Your task to perform on an android device: What's the weather going to be tomorrow? Image 0: 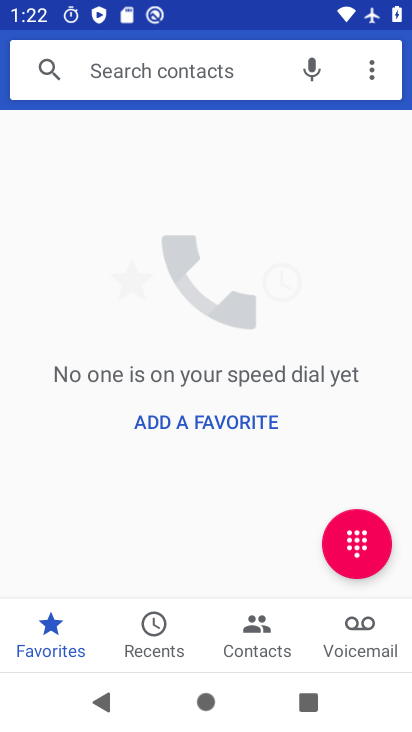
Step 0: press home button
Your task to perform on an android device: What's the weather going to be tomorrow? Image 1: 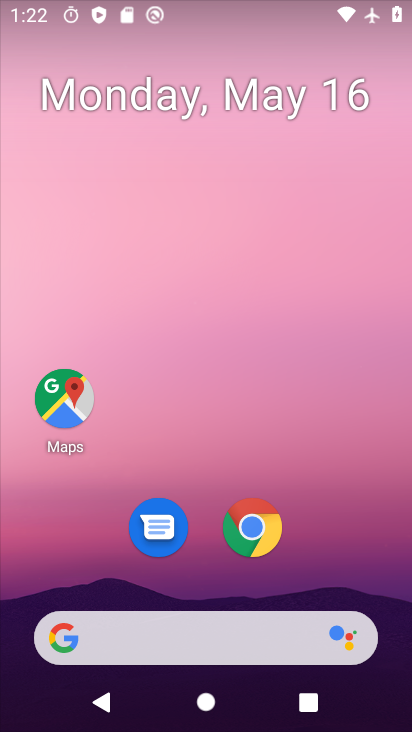
Step 1: click (68, 634)
Your task to perform on an android device: What's the weather going to be tomorrow? Image 2: 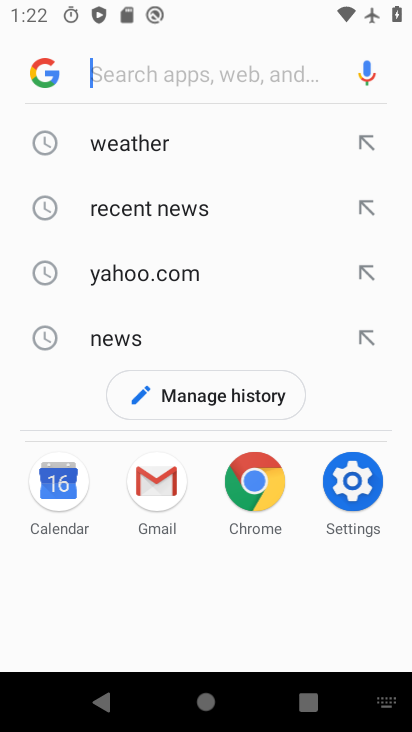
Step 2: click (165, 140)
Your task to perform on an android device: What's the weather going to be tomorrow? Image 3: 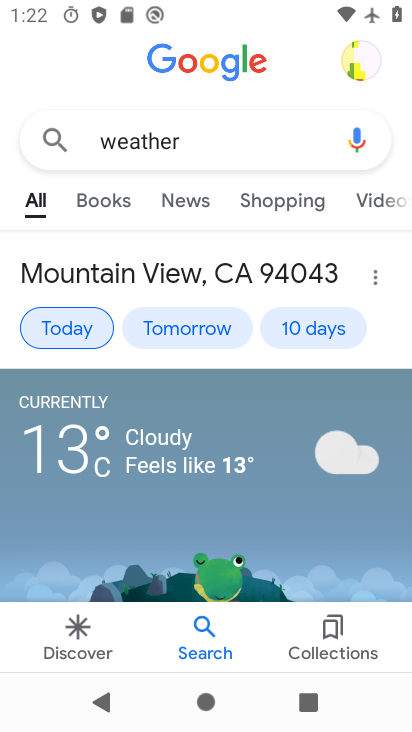
Step 3: click (187, 327)
Your task to perform on an android device: What's the weather going to be tomorrow? Image 4: 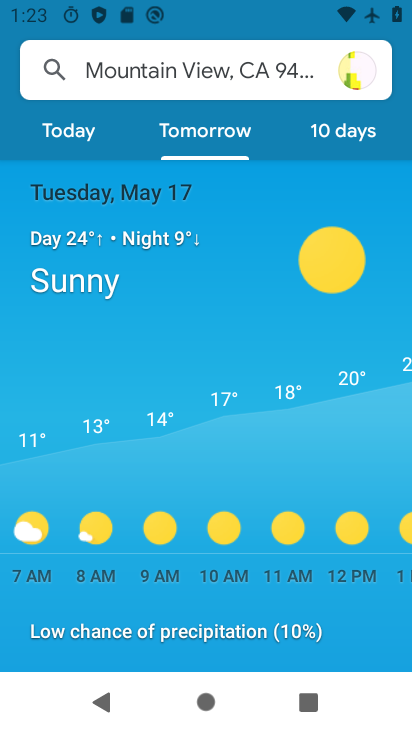
Step 4: task complete